Your task to perform on an android device: turn off javascript in the chrome app Image 0: 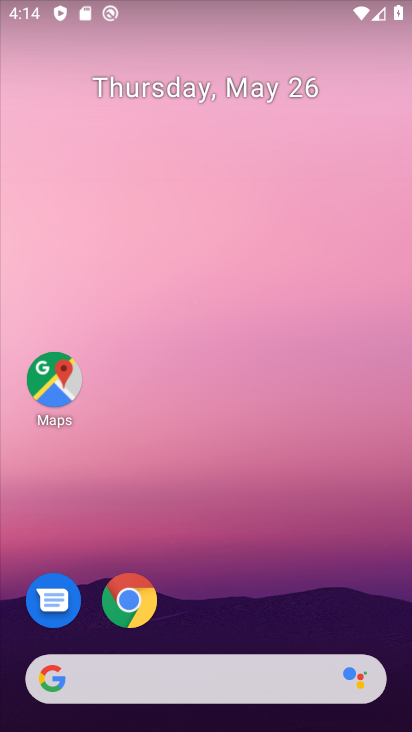
Step 0: click (140, 613)
Your task to perform on an android device: turn off javascript in the chrome app Image 1: 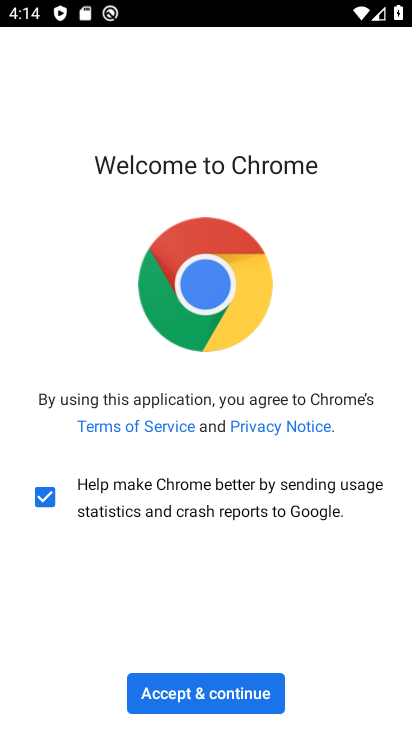
Step 1: click (217, 687)
Your task to perform on an android device: turn off javascript in the chrome app Image 2: 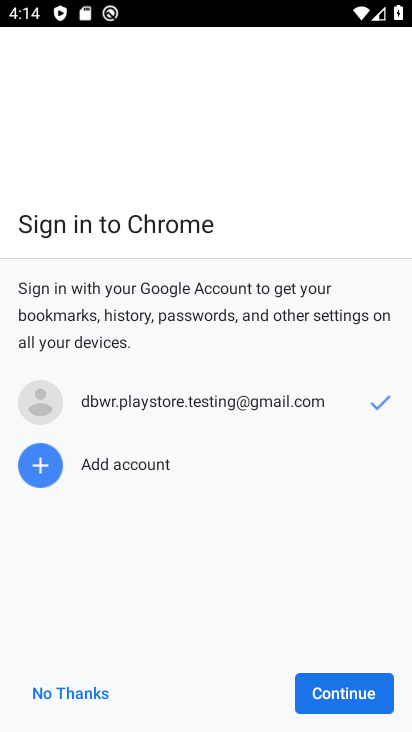
Step 2: click (312, 697)
Your task to perform on an android device: turn off javascript in the chrome app Image 3: 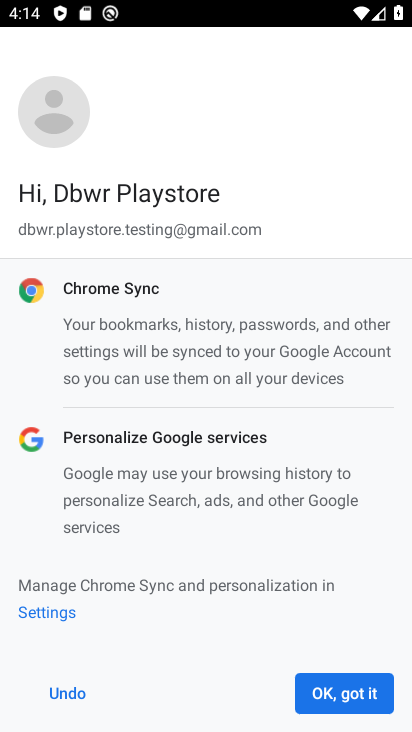
Step 3: click (311, 697)
Your task to perform on an android device: turn off javascript in the chrome app Image 4: 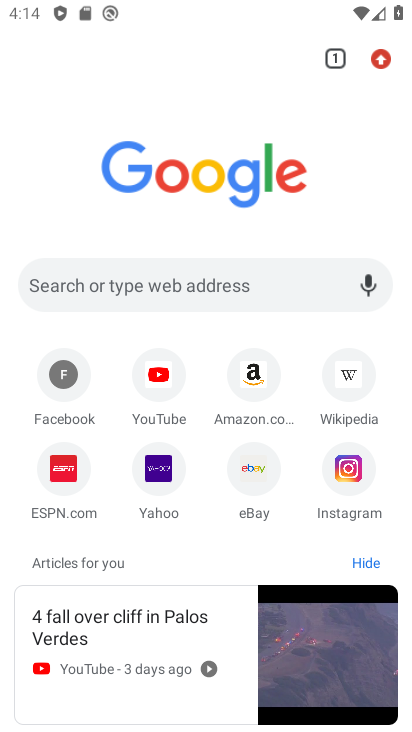
Step 4: click (385, 61)
Your task to perform on an android device: turn off javascript in the chrome app Image 5: 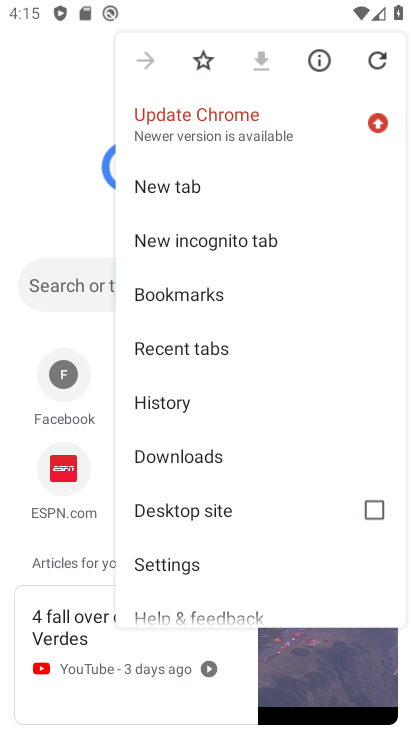
Step 5: drag from (226, 531) to (200, 264)
Your task to perform on an android device: turn off javascript in the chrome app Image 6: 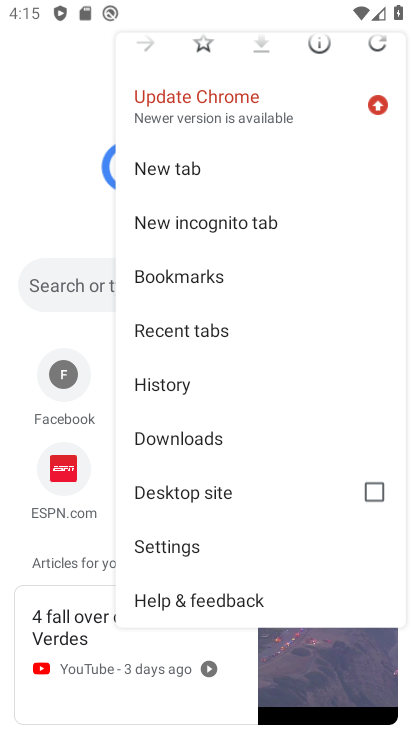
Step 6: click (178, 549)
Your task to perform on an android device: turn off javascript in the chrome app Image 7: 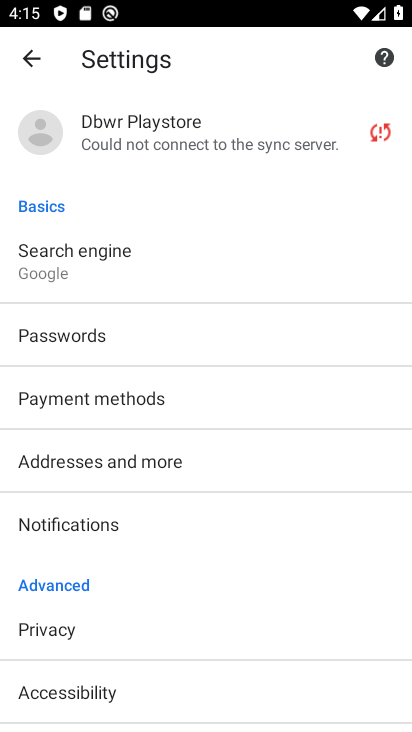
Step 7: drag from (206, 656) to (190, 389)
Your task to perform on an android device: turn off javascript in the chrome app Image 8: 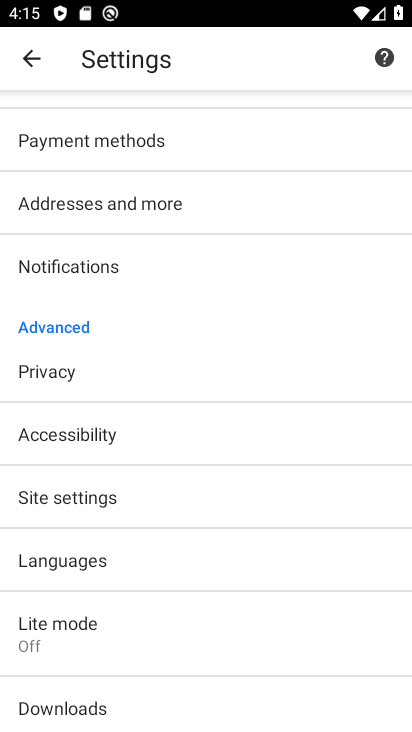
Step 8: click (171, 492)
Your task to perform on an android device: turn off javascript in the chrome app Image 9: 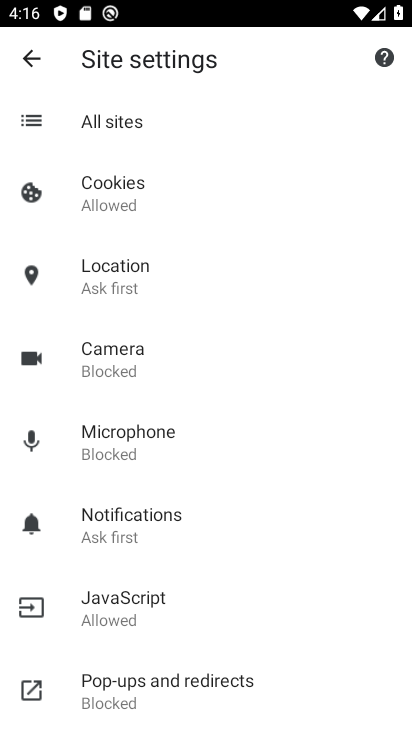
Step 9: click (171, 603)
Your task to perform on an android device: turn off javascript in the chrome app Image 10: 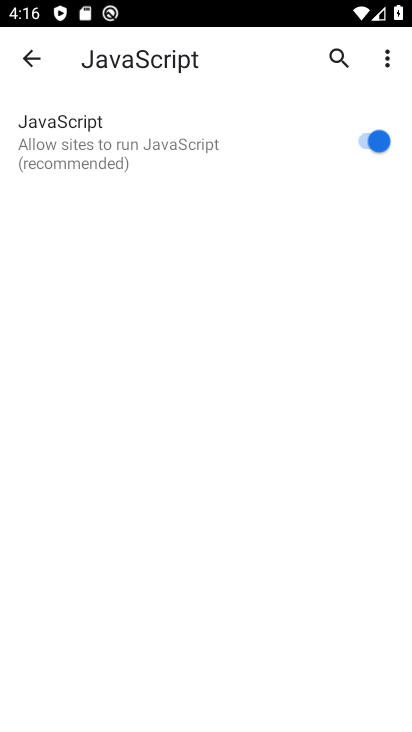
Step 10: click (371, 154)
Your task to perform on an android device: turn off javascript in the chrome app Image 11: 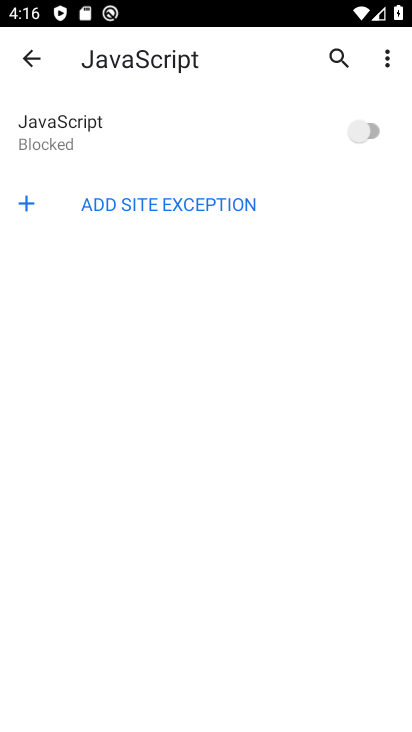
Step 11: task complete